Your task to perform on an android device: Go to Yahoo.com Image 0: 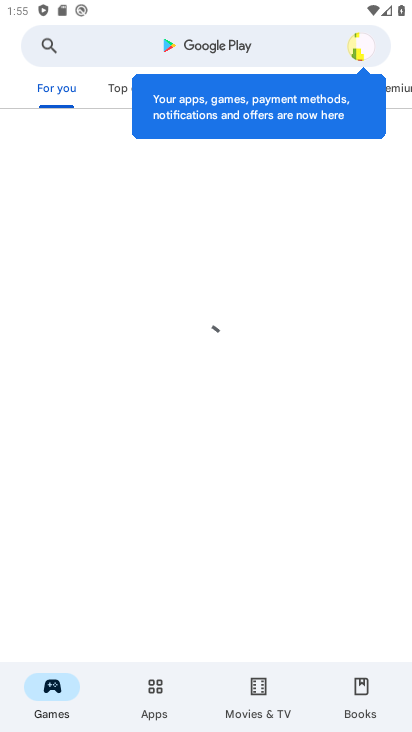
Step 0: press home button
Your task to perform on an android device: Go to Yahoo.com Image 1: 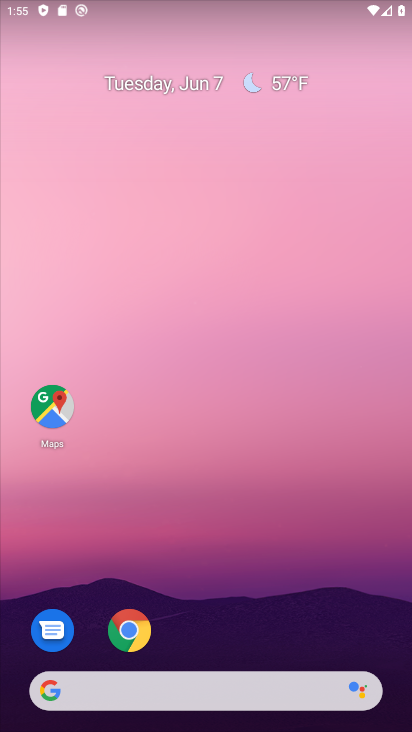
Step 1: click (139, 632)
Your task to perform on an android device: Go to Yahoo.com Image 2: 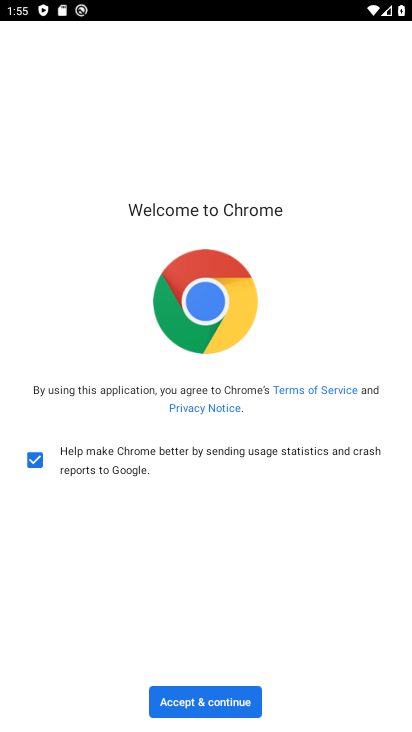
Step 2: click (197, 704)
Your task to perform on an android device: Go to Yahoo.com Image 3: 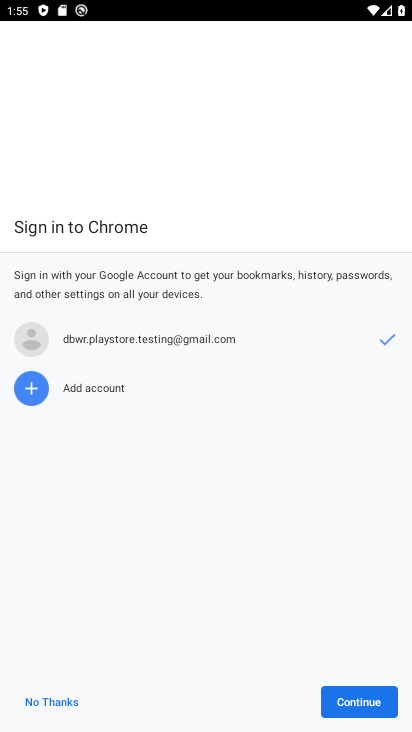
Step 3: click (381, 697)
Your task to perform on an android device: Go to Yahoo.com Image 4: 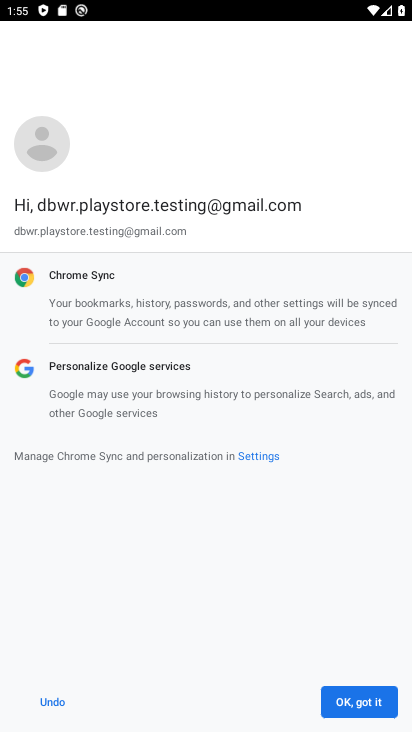
Step 4: click (381, 697)
Your task to perform on an android device: Go to Yahoo.com Image 5: 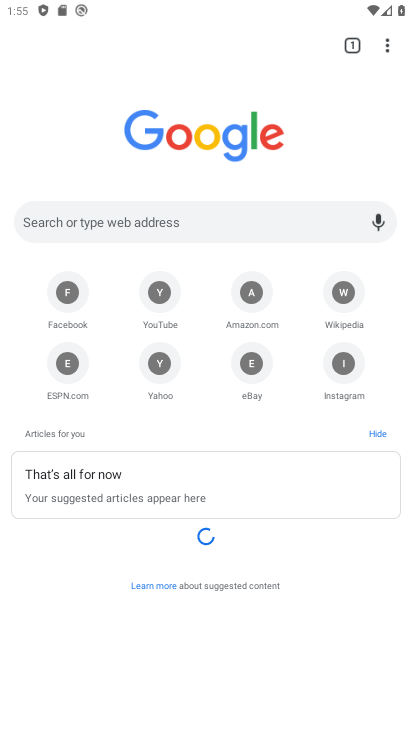
Step 5: click (153, 218)
Your task to perform on an android device: Go to Yahoo.com Image 6: 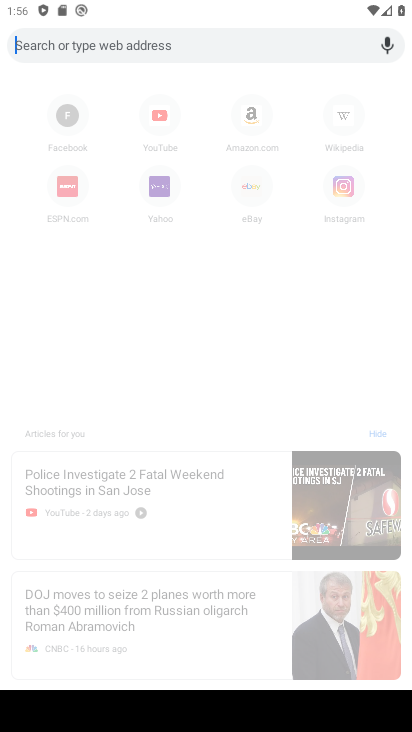
Step 6: type "Yahoo.com"
Your task to perform on an android device: Go to Yahoo.com Image 7: 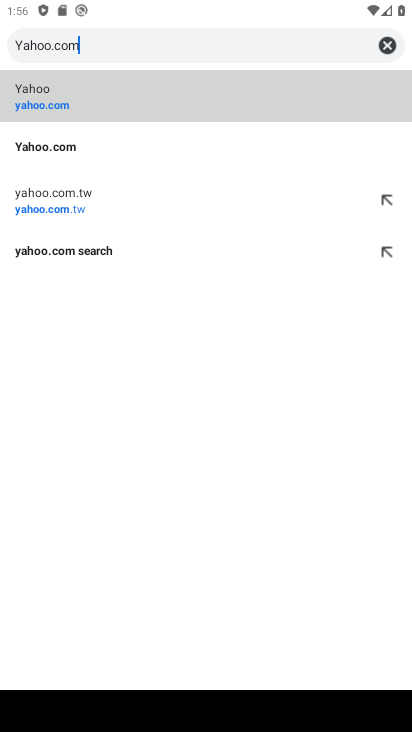
Step 7: click (20, 147)
Your task to perform on an android device: Go to Yahoo.com Image 8: 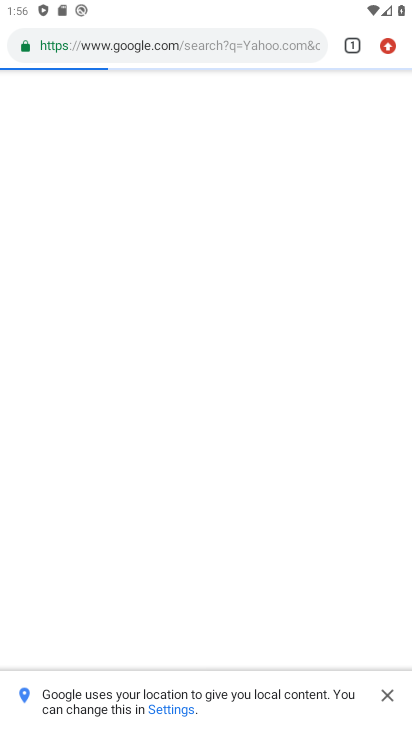
Step 8: task complete